Your task to perform on an android device: Open Google Chrome and click the shortcut for Amazon.com Image 0: 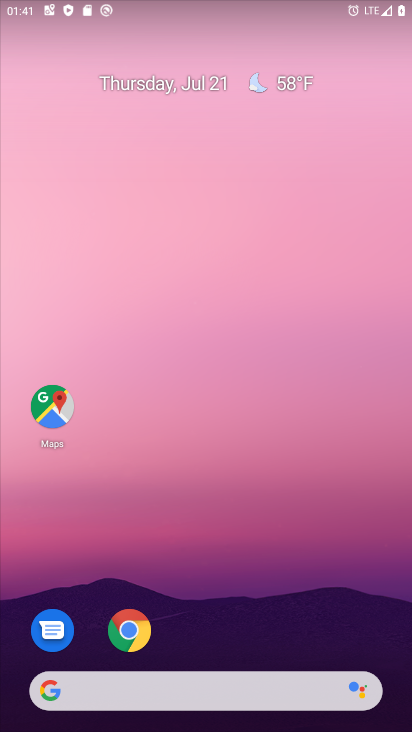
Step 0: click (125, 618)
Your task to perform on an android device: Open Google Chrome and click the shortcut for Amazon.com Image 1: 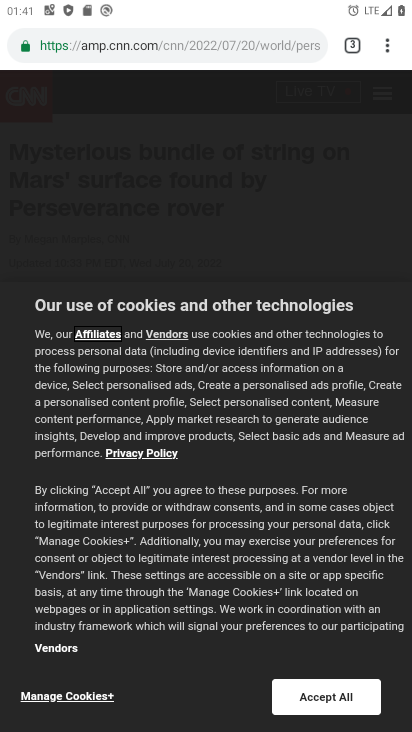
Step 1: click (352, 43)
Your task to perform on an android device: Open Google Chrome and click the shortcut for Amazon.com Image 2: 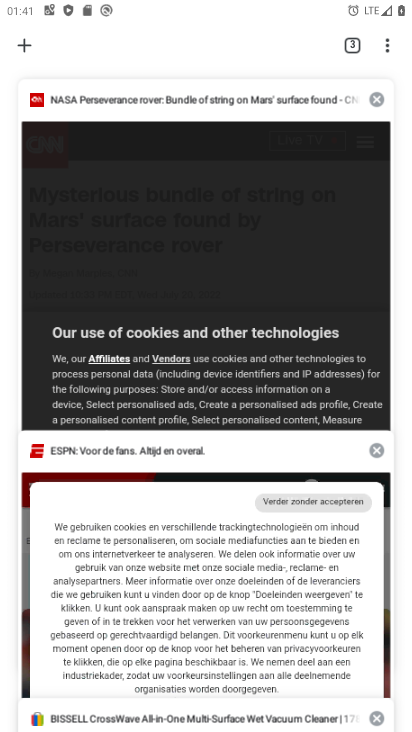
Step 2: click (20, 47)
Your task to perform on an android device: Open Google Chrome and click the shortcut for Amazon.com Image 3: 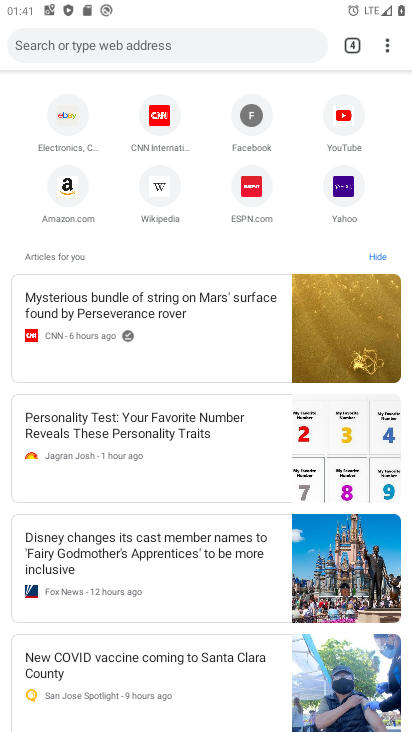
Step 3: click (75, 183)
Your task to perform on an android device: Open Google Chrome and click the shortcut for Amazon.com Image 4: 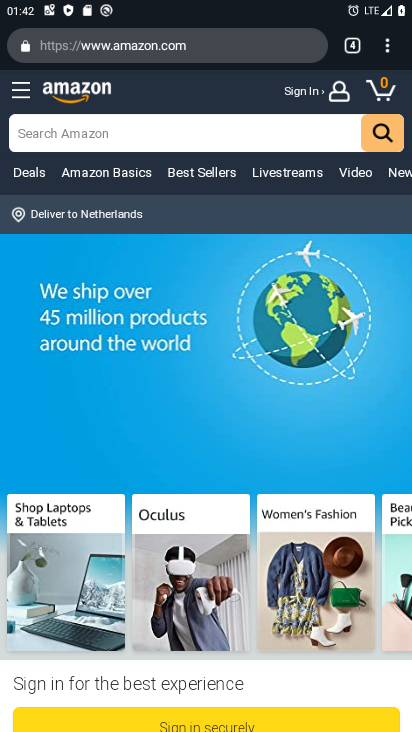
Step 4: task complete